Your task to perform on an android device: Open the map Image 0: 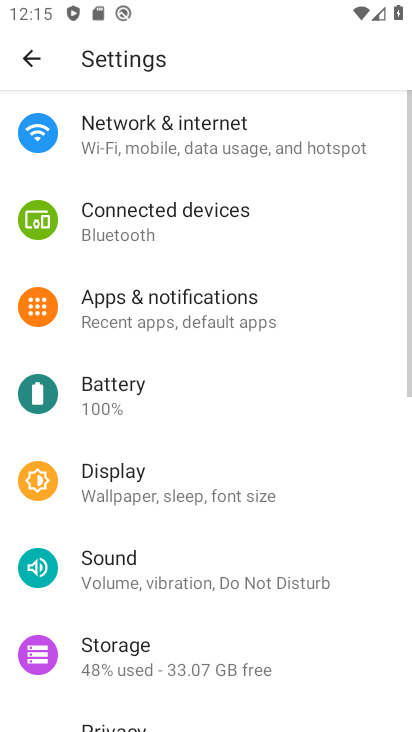
Step 0: press back button
Your task to perform on an android device: Open the map Image 1: 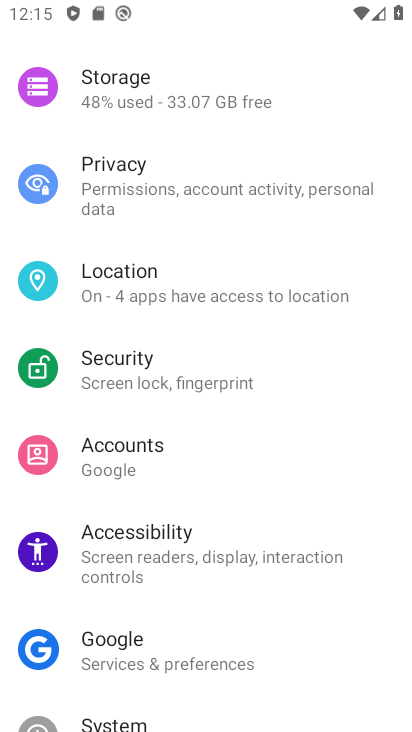
Step 1: press home button
Your task to perform on an android device: Open the map Image 2: 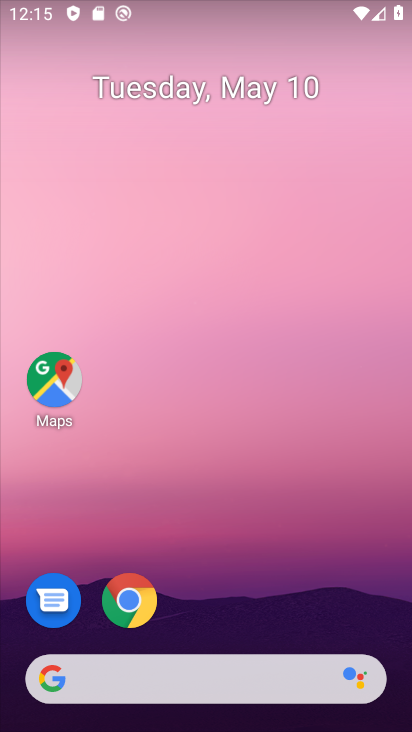
Step 2: click (71, 401)
Your task to perform on an android device: Open the map Image 3: 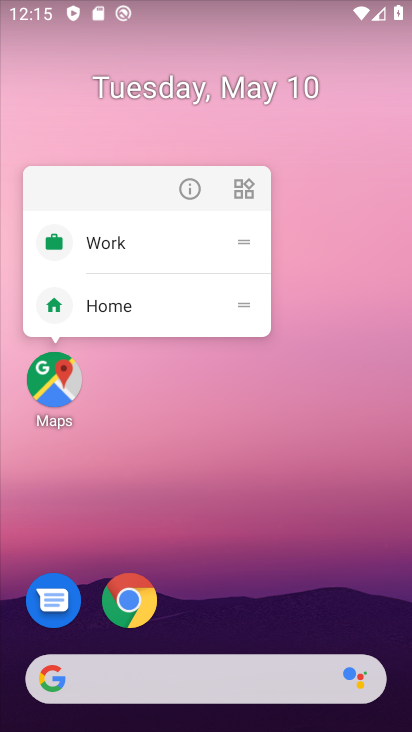
Step 3: click (46, 368)
Your task to perform on an android device: Open the map Image 4: 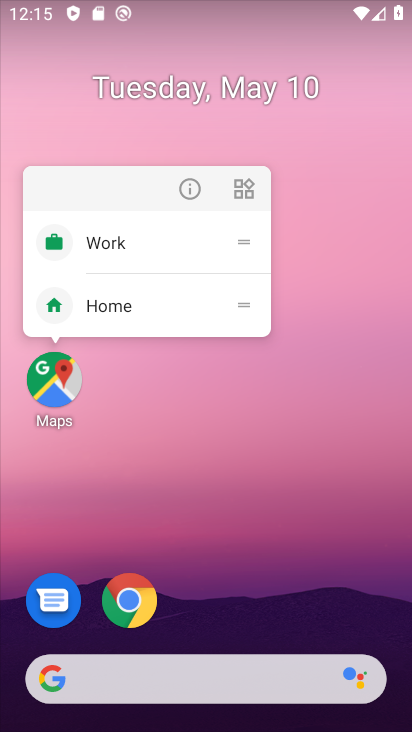
Step 4: click (50, 371)
Your task to perform on an android device: Open the map Image 5: 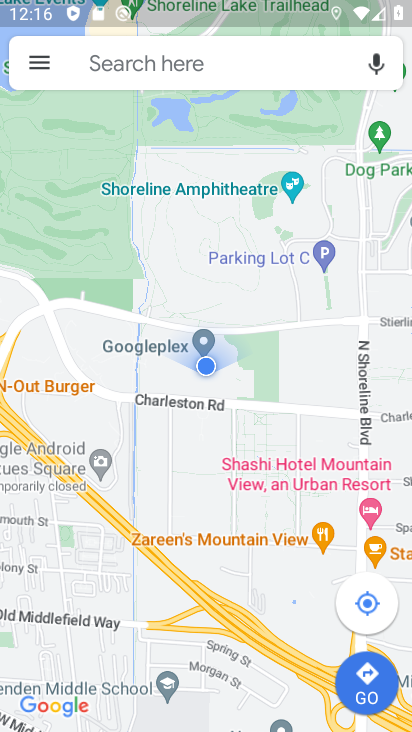
Step 5: task complete